Your task to perform on an android device: toggle notifications settings in the gmail app Image 0: 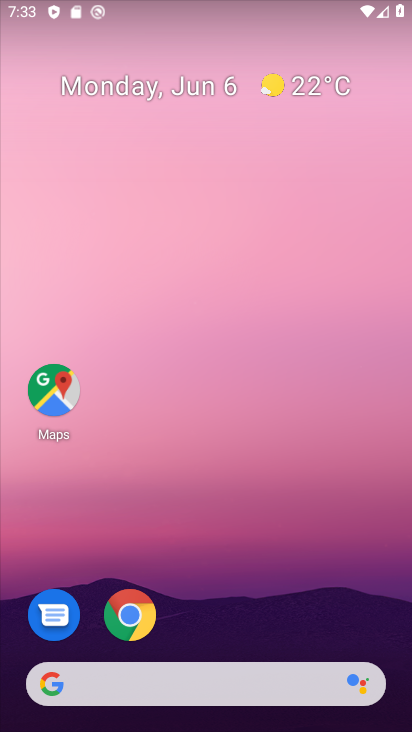
Step 0: press home button
Your task to perform on an android device: toggle notifications settings in the gmail app Image 1: 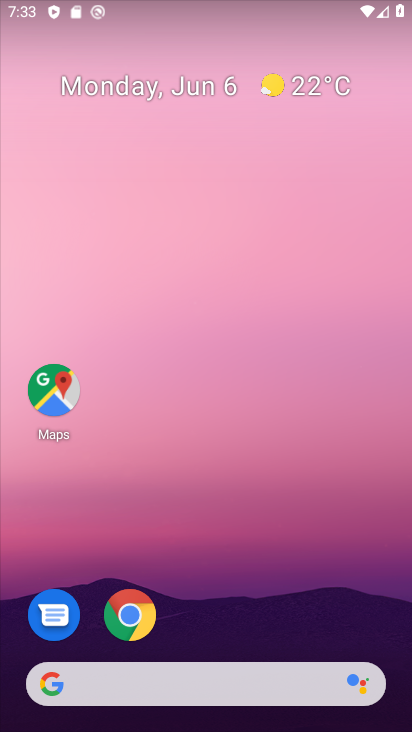
Step 1: drag from (400, 693) to (331, 0)
Your task to perform on an android device: toggle notifications settings in the gmail app Image 2: 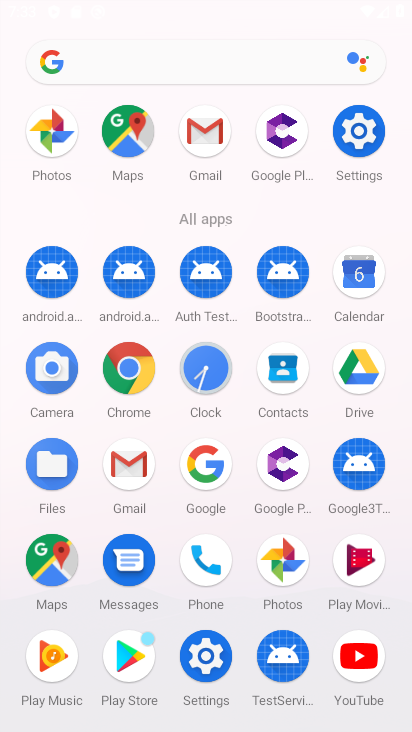
Step 2: click (112, 471)
Your task to perform on an android device: toggle notifications settings in the gmail app Image 3: 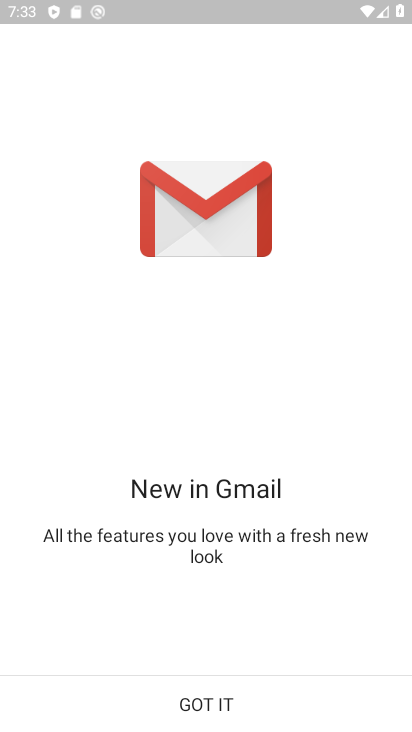
Step 3: click (203, 694)
Your task to perform on an android device: toggle notifications settings in the gmail app Image 4: 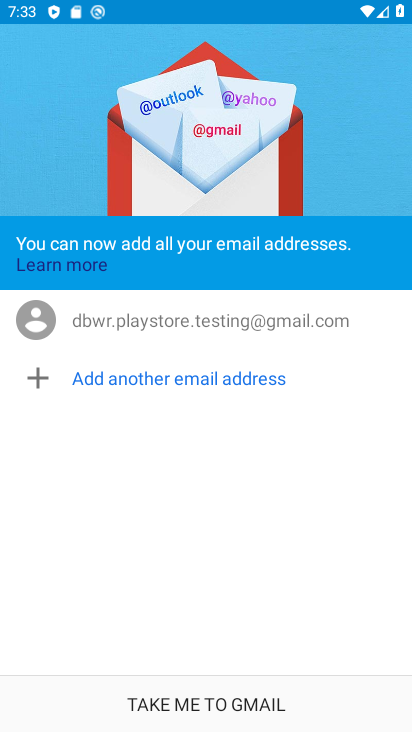
Step 4: click (213, 707)
Your task to perform on an android device: toggle notifications settings in the gmail app Image 5: 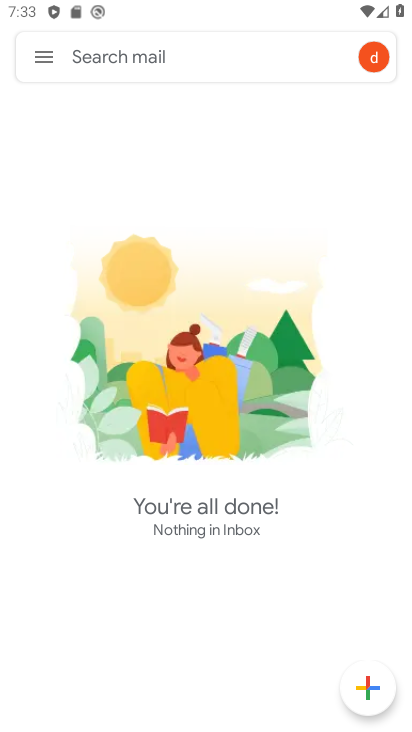
Step 5: click (51, 57)
Your task to perform on an android device: toggle notifications settings in the gmail app Image 6: 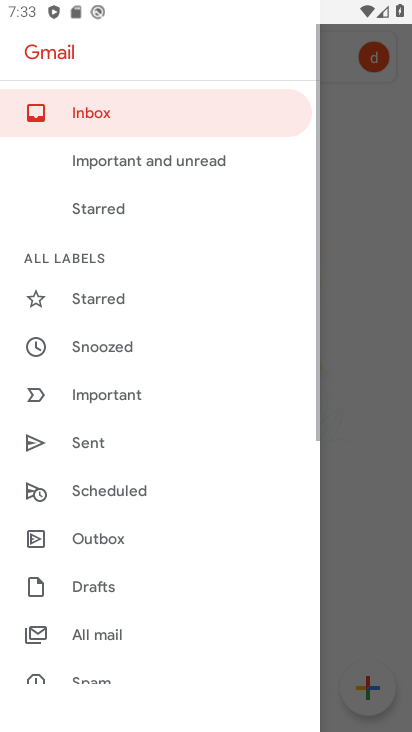
Step 6: drag from (191, 678) to (193, 262)
Your task to perform on an android device: toggle notifications settings in the gmail app Image 7: 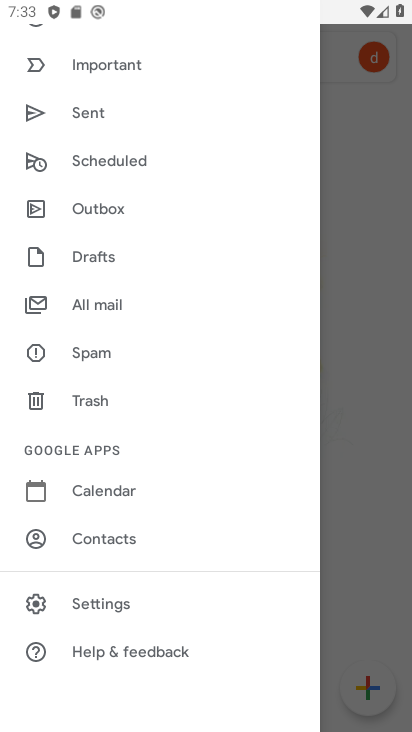
Step 7: click (86, 601)
Your task to perform on an android device: toggle notifications settings in the gmail app Image 8: 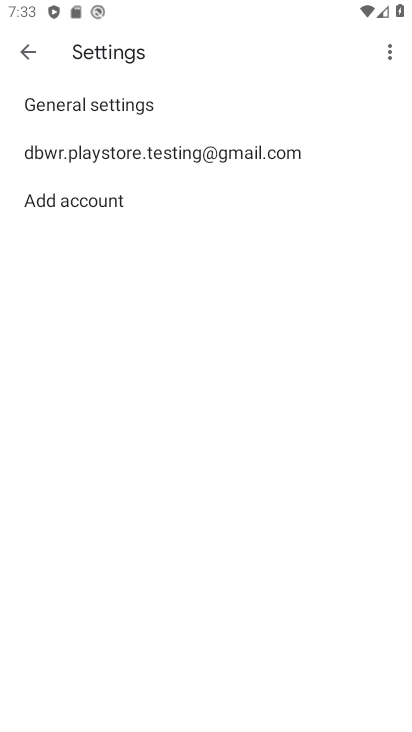
Step 8: click (82, 92)
Your task to perform on an android device: toggle notifications settings in the gmail app Image 9: 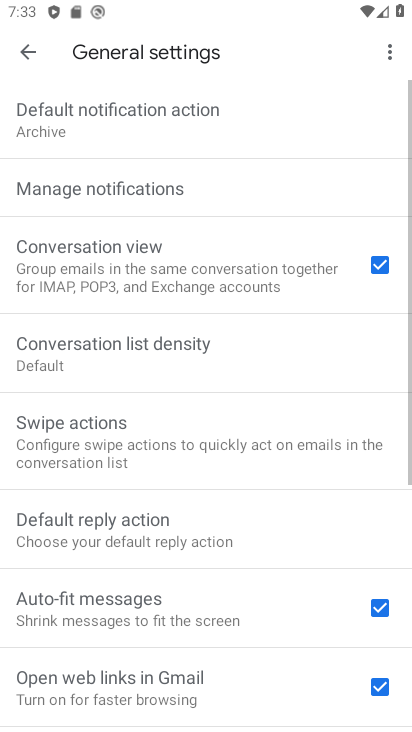
Step 9: click (111, 192)
Your task to perform on an android device: toggle notifications settings in the gmail app Image 10: 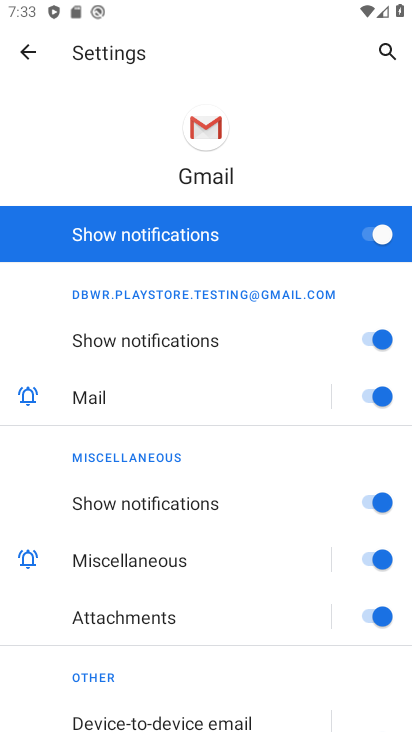
Step 10: click (366, 230)
Your task to perform on an android device: toggle notifications settings in the gmail app Image 11: 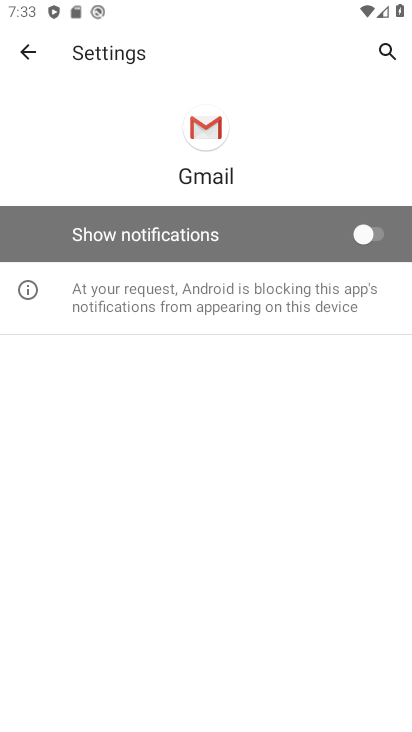
Step 11: task complete